Your task to perform on an android device: Go to wifi settings Image 0: 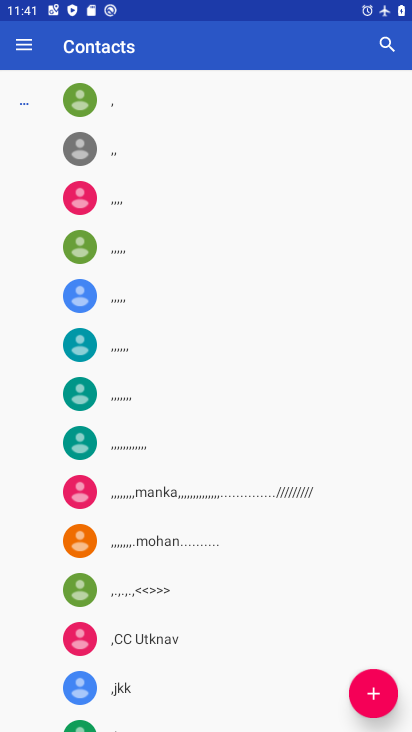
Step 0: press home button
Your task to perform on an android device: Go to wifi settings Image 1: 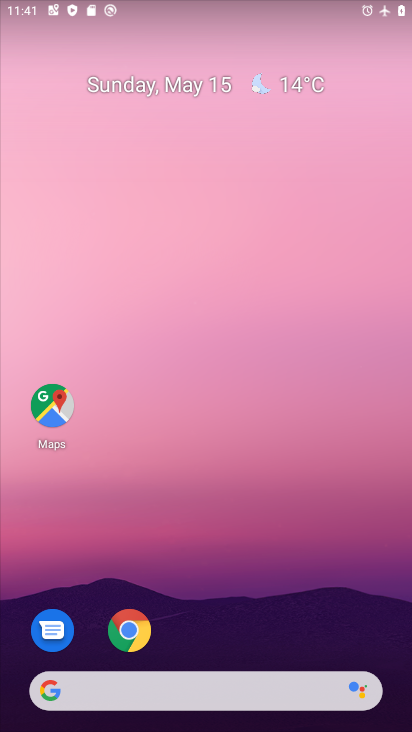
Step 1: drag from (223, 628) to (223, 277)
Your task to perform on an android device: Go to wifi settings Image 2: 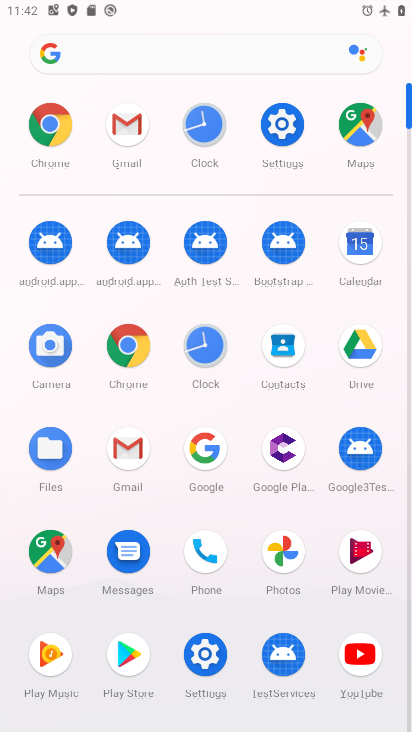
Step 2: click (290, 123)
Your task to perform on an android device: Go to wifi settings Image 3: 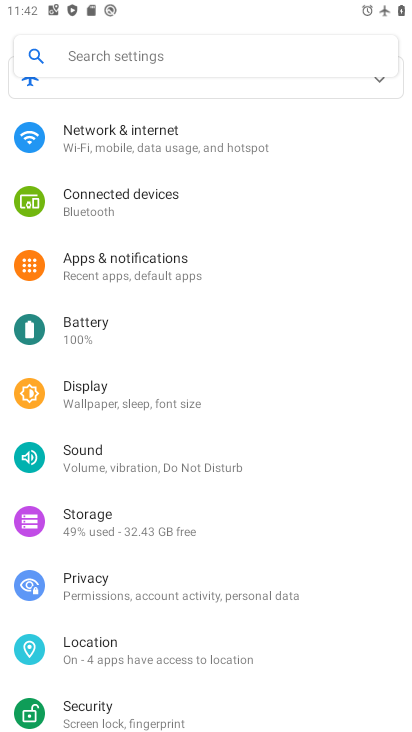
Step 3: click (91, 133)
Your task to perform on an android device: Go to wifi settings Image 4: 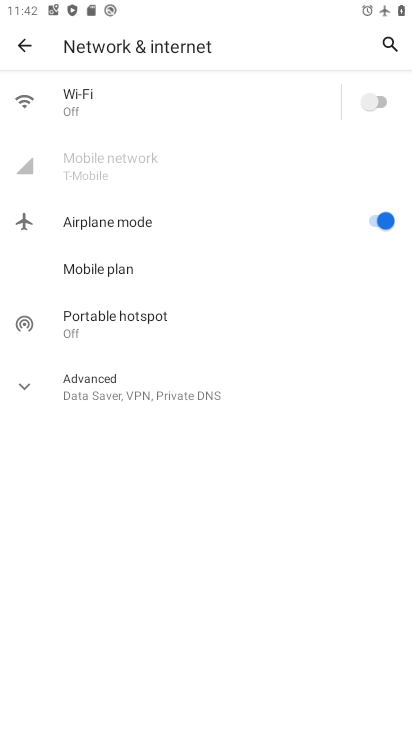
Step 4: click (79, 92)
Your task to perform on an android device: Go to wifi settings Image 5: 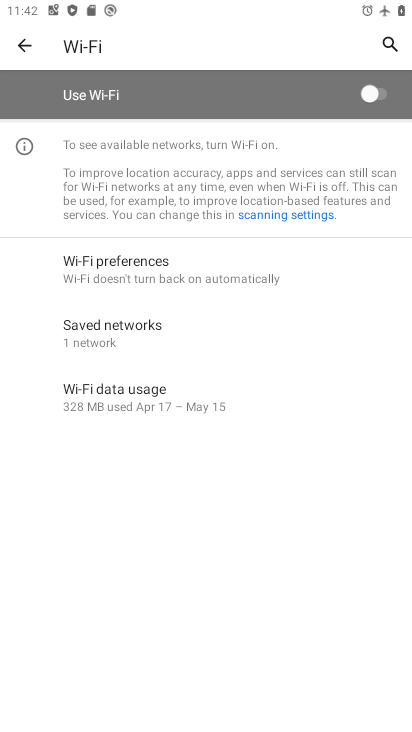
Step 5: task complete